Your task to perform on an android device: turn off javascript in the chrome app Image 0: 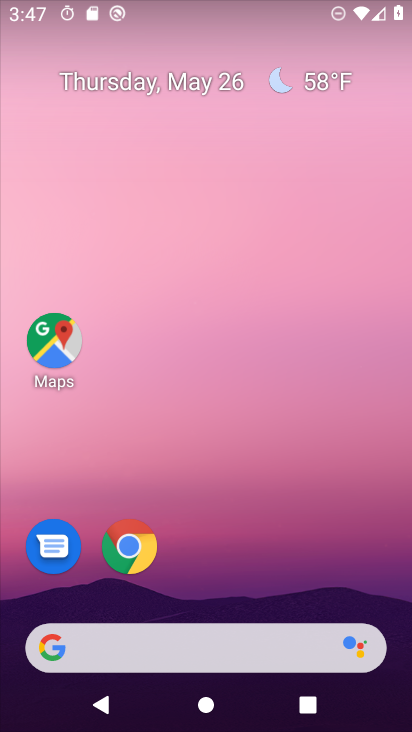
Step 0: press home button
Your task to perform on an android device: turn off javascript in the chrome app Image 1: 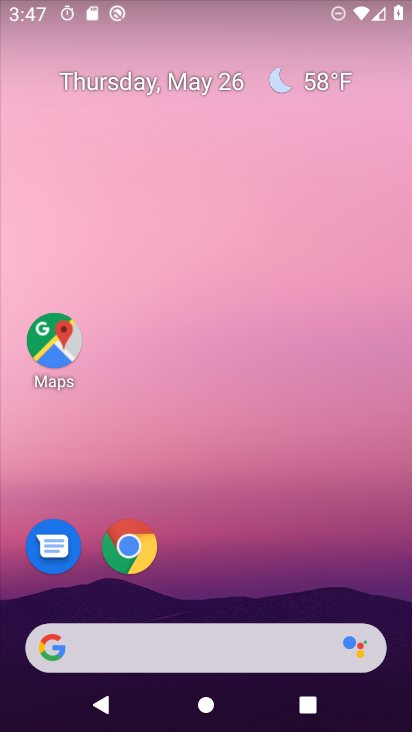
Step 1: click (123, 541)
Your task to perform on an android device: turn off javascript in the chrome app Image 2: 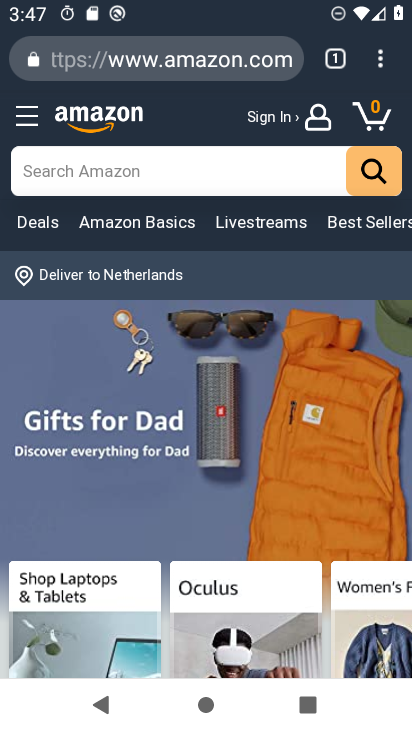
Step 2: click (377, 54)
Your task to perform on an android device: turn off javascript in the chrome app Image 3: 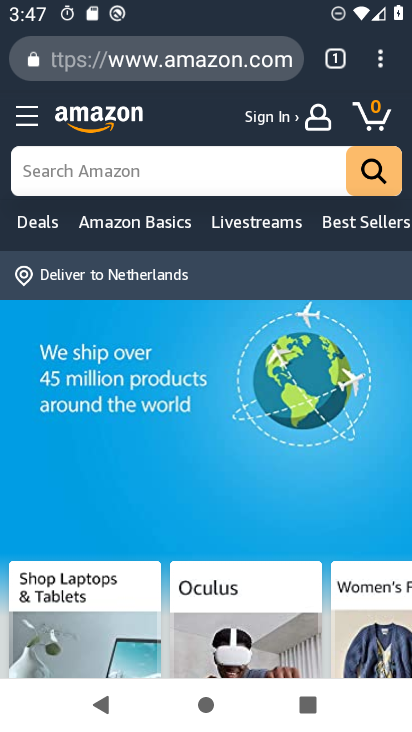
Step 3: click (383, 60)
Your task to perform on an android device: turn off javascript in the chrome app Image 4: 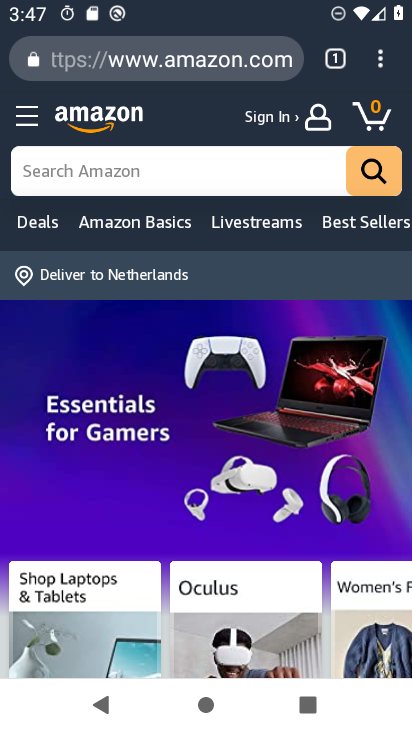
Step 4: click (383, 60)
Your task to perform on an android device: turn off javascript in the chrome app Image 5: 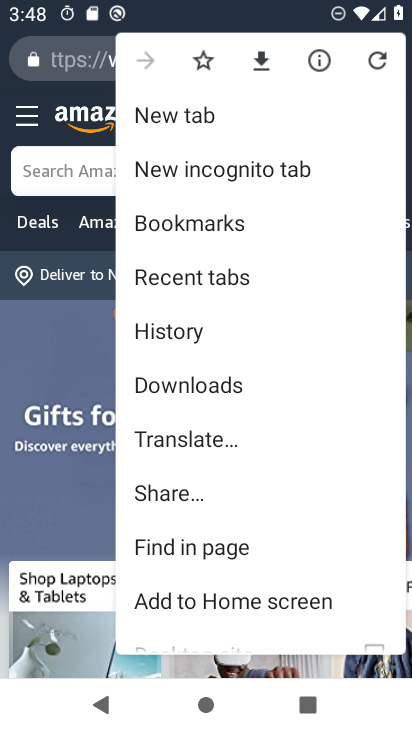
Step 5: drag from (273, 566) to (304, 212)
Your task to perform on an android device: turn off javascript in the chrome app Image 6: 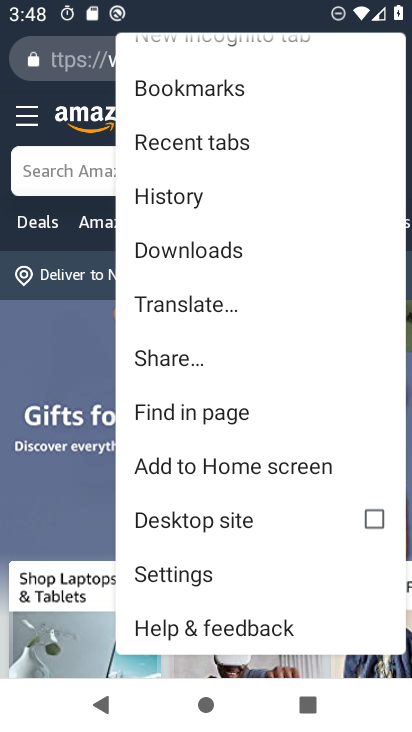
Step 6: click (221, 570)
Your task to perform on an android device: turn off javascript in the chrome app Image 7: 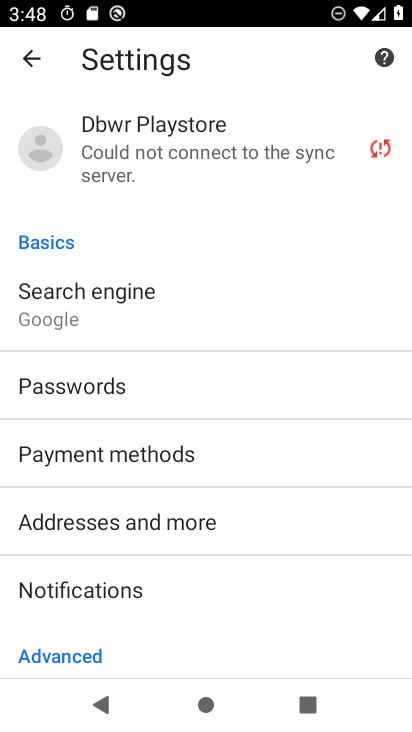
Step 7: drag from (229, 610) to (246, 83)
Your task to perform on an android device: turn off javascript in the chrome app Image 8: 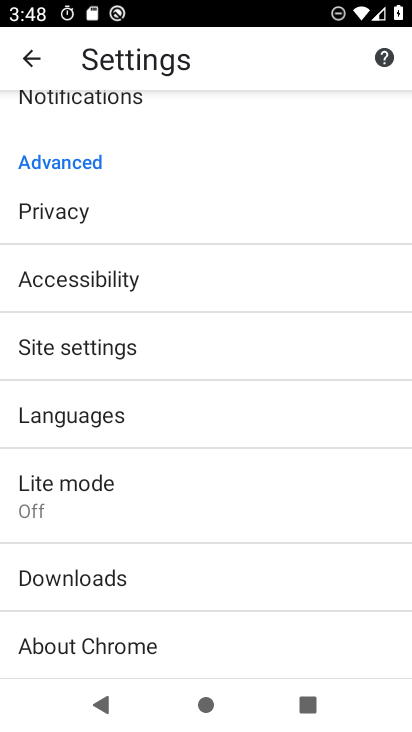
Step 8: click (160, 339)
Your task to perform on an android device: turn off javascript in the chrome app Image 9: 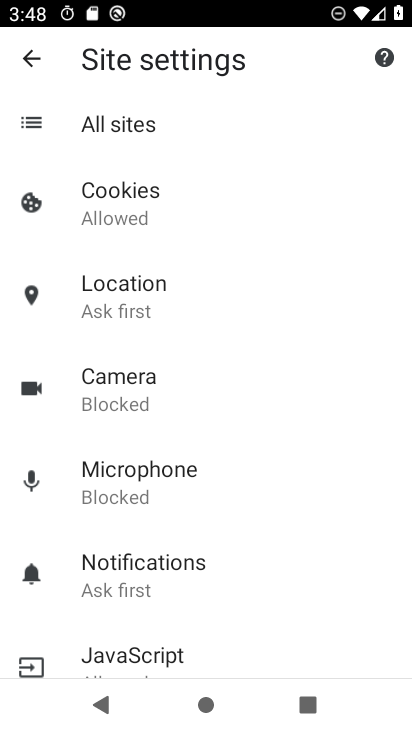
Step 9: click (205, 653)
Your task to perform on an android device: turn off javascript in the chrome app Image 10: 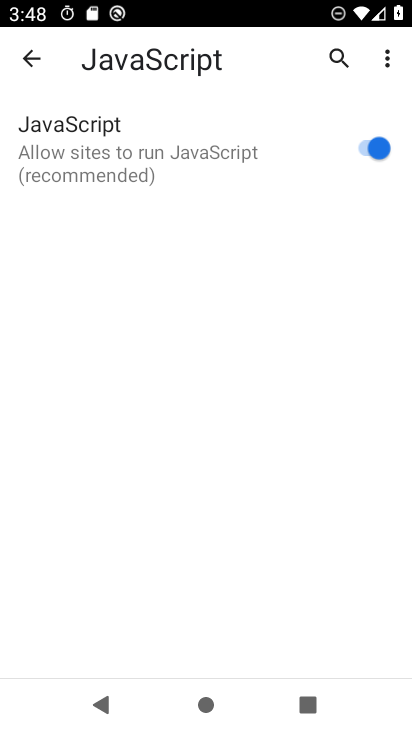
Step 10: click (370, 148)
Your task to perform on an android device: turn off javascript in the chrome app Image 11: 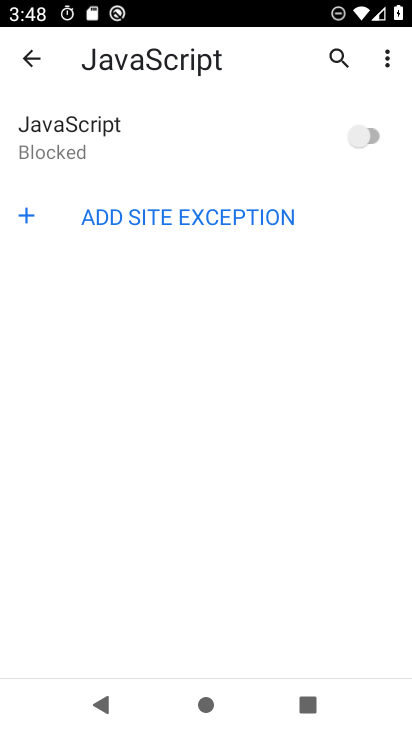
Step 11: task complete